Your task to perform on an android device: empty trash in the gmail app Image 0: 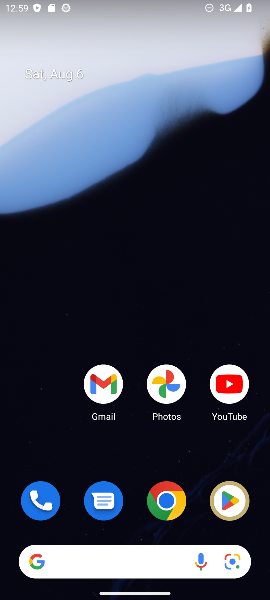
Step 0: click (104, 378)
Your task to perform on an android device: empty trash in the gmail app Image 1: 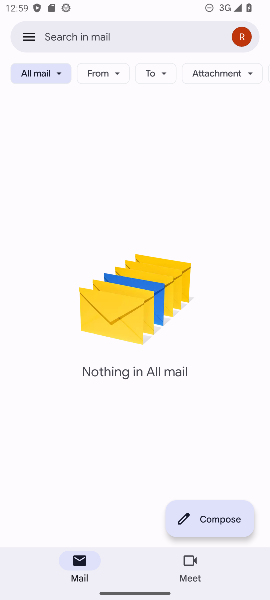
Step 1: click (27, 36)
Your task to perform on an android device: empty trash in the gmail app Image 2: 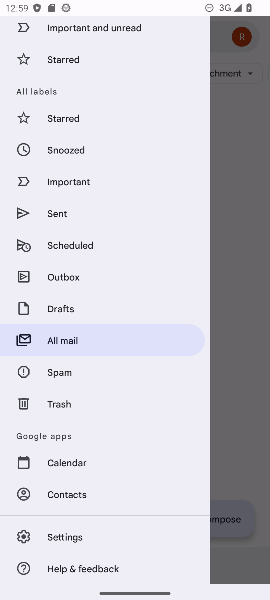
Step 2: click (64, 404)
Your task to perform on an android device: empty trash in the gmail app Image 3: 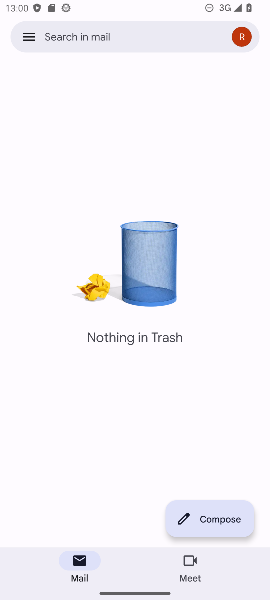
Step 3: task complete